Your task to perform on an android device: Add "lenovo thinkpad" to the cart on costco.com, then select checkout. Image 0: 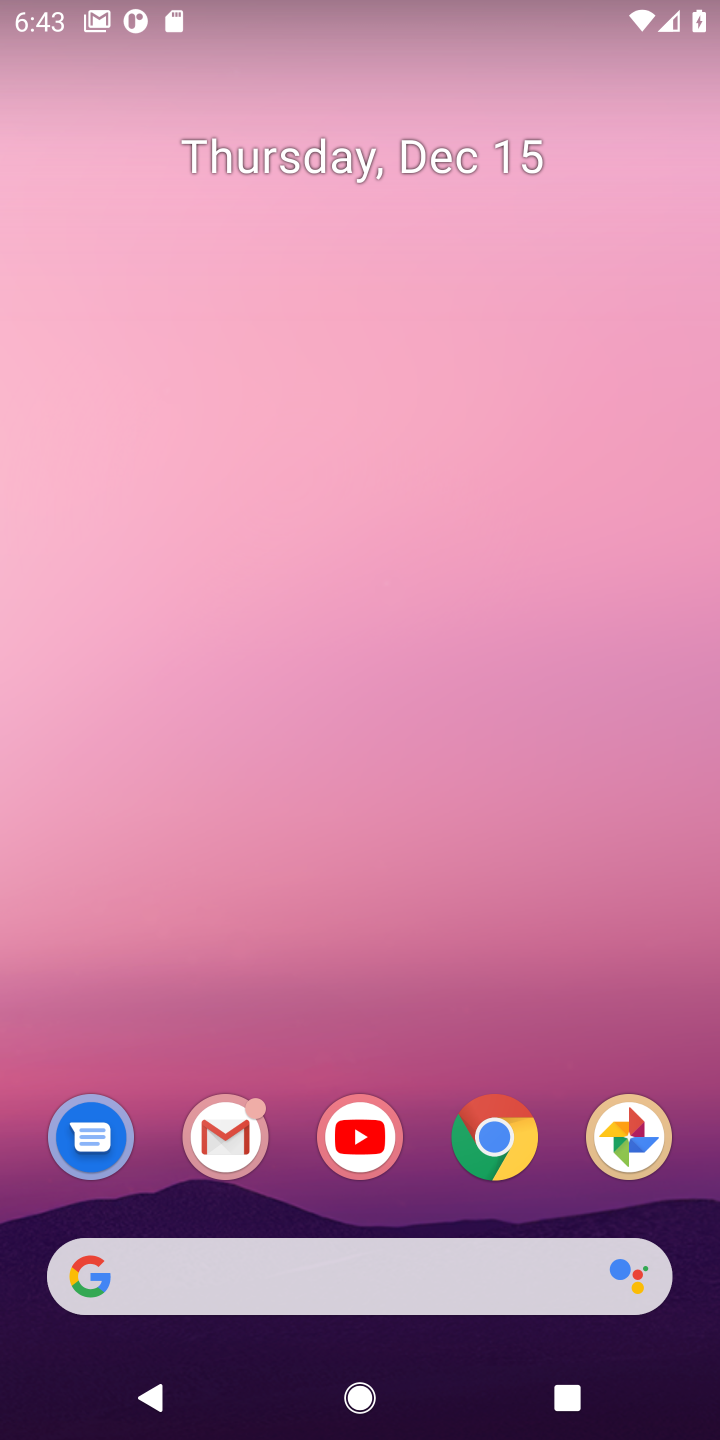
Step 0: drag from (304, 1209) to (304, 49)
Your task to perform on an android device: Add "lenovo thinkpad" to the cart on costco.com, then select checkout. Image 1: 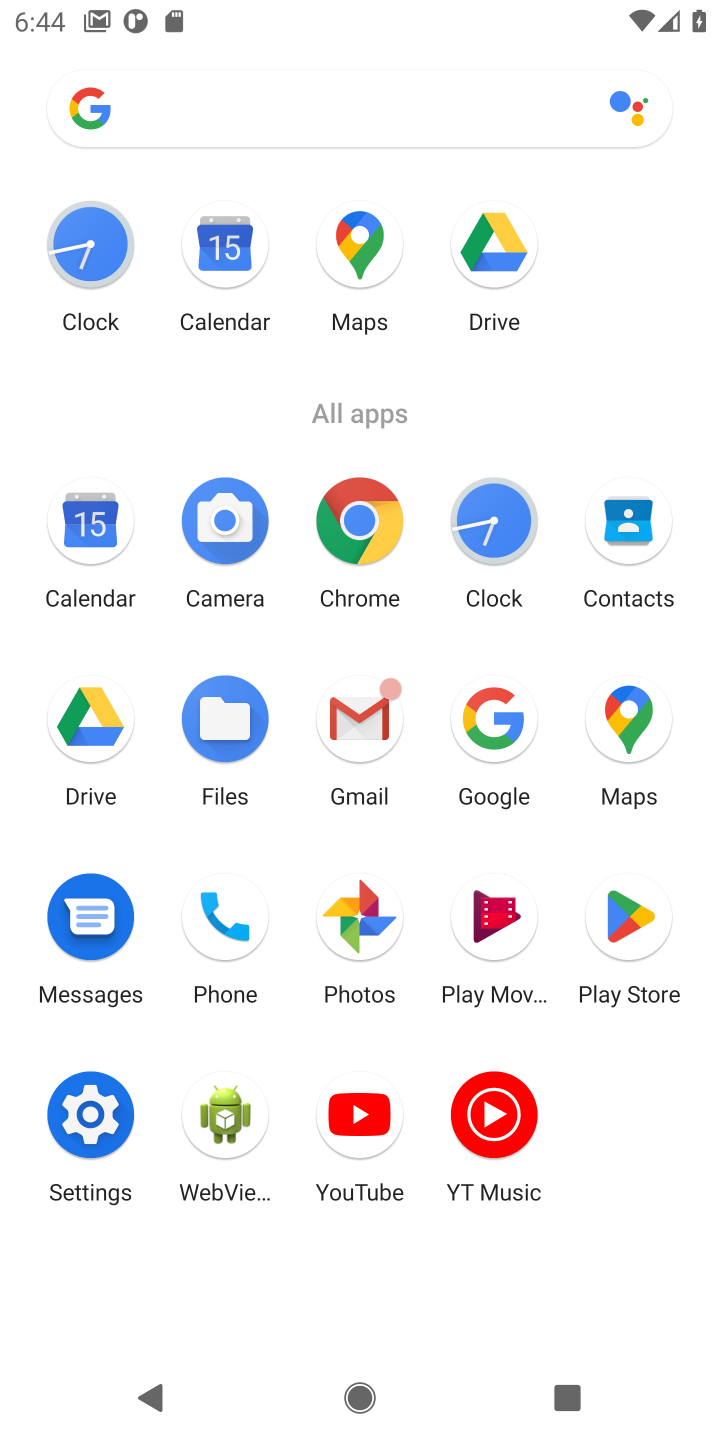
Step 1: click (498, 721)
Your task to perform on an android device: Add "lenovo thinkpad" to the cart on costco.com, then select checkout. Image 2: 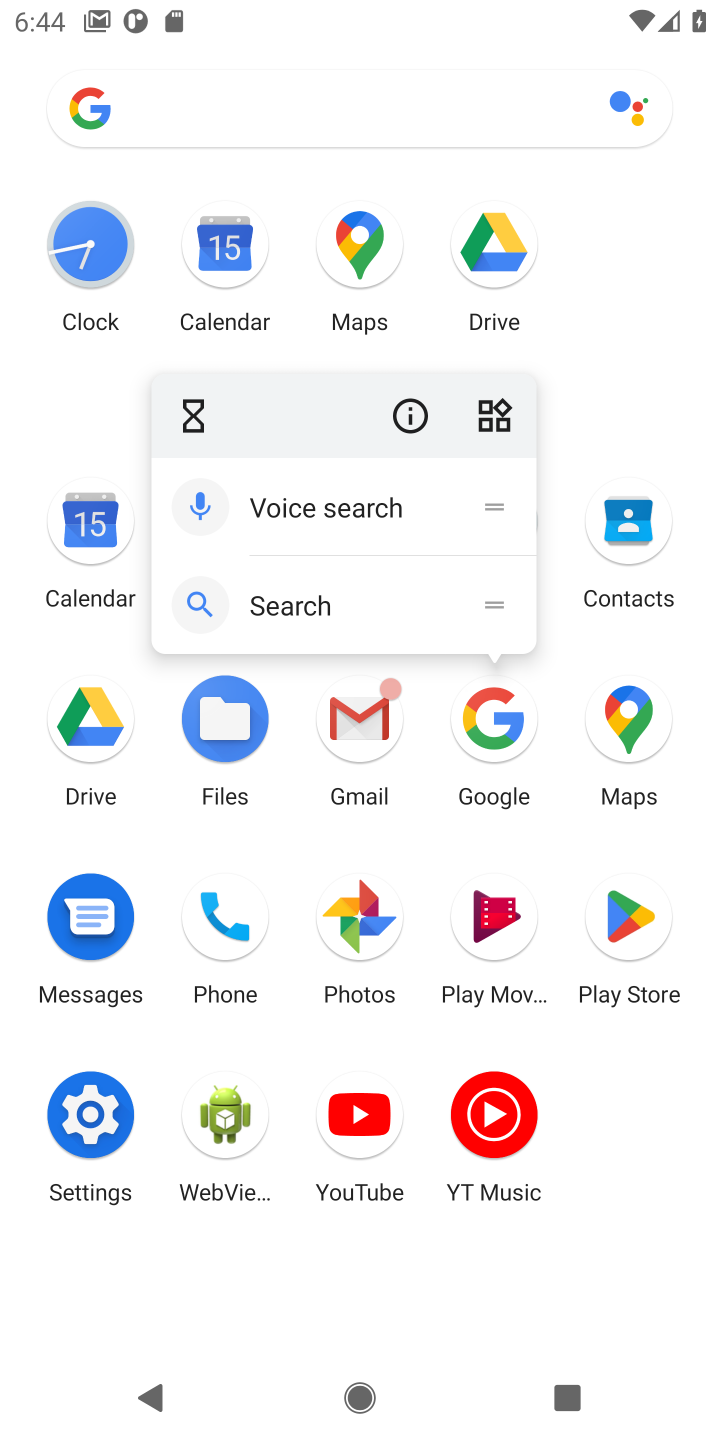
Step 2: click (498, 721)
Your task to perform on an android device: Add "lenovo thinkpad" to the cart on costco.com, then select checkout. Image 3: 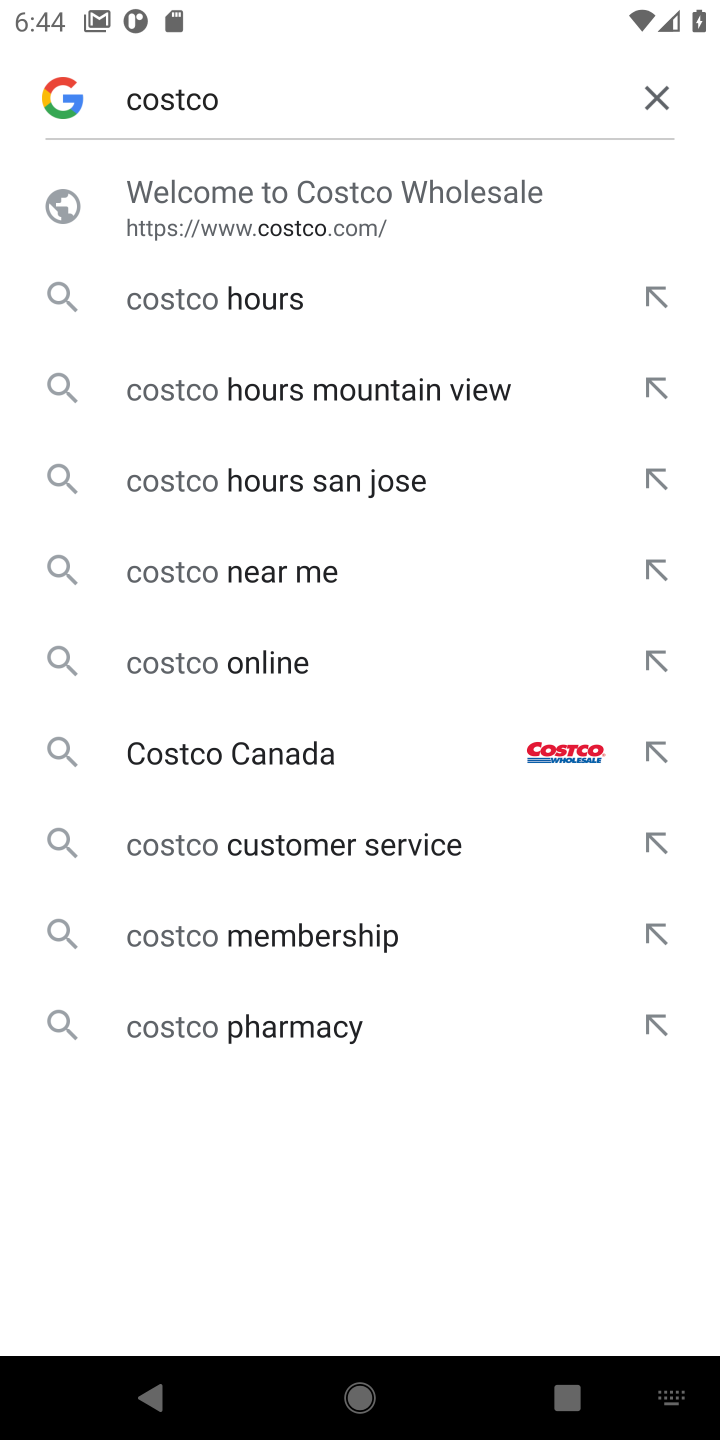
Step 3: click (213, 203)
Your task to perform on an android device: Add "lenovo thinkpad" to the cart on costco.com, then select checkout. Image 4: 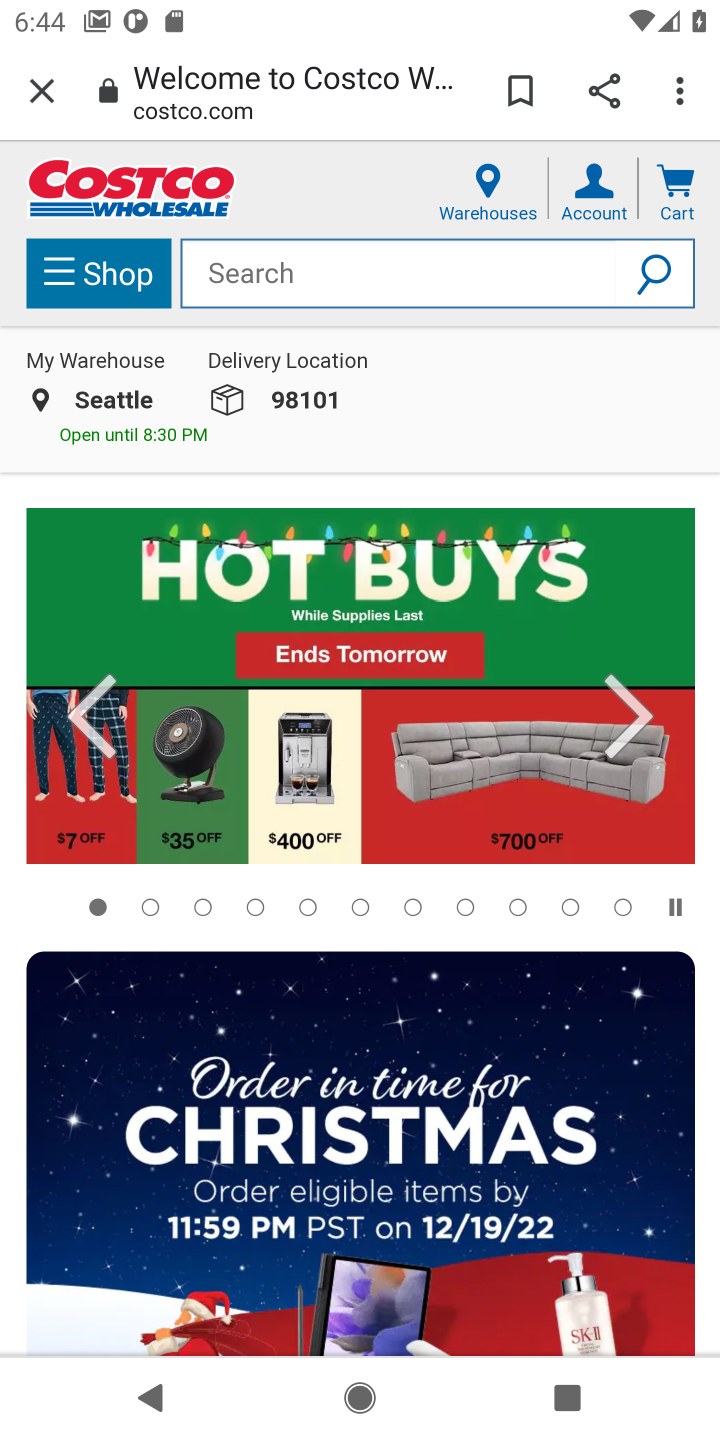
Step 4: click (231, 264)
Your task to perform on an android device: Add "lenovo thinkpad" to the cart on costco.com, then select checkout. Image 5: 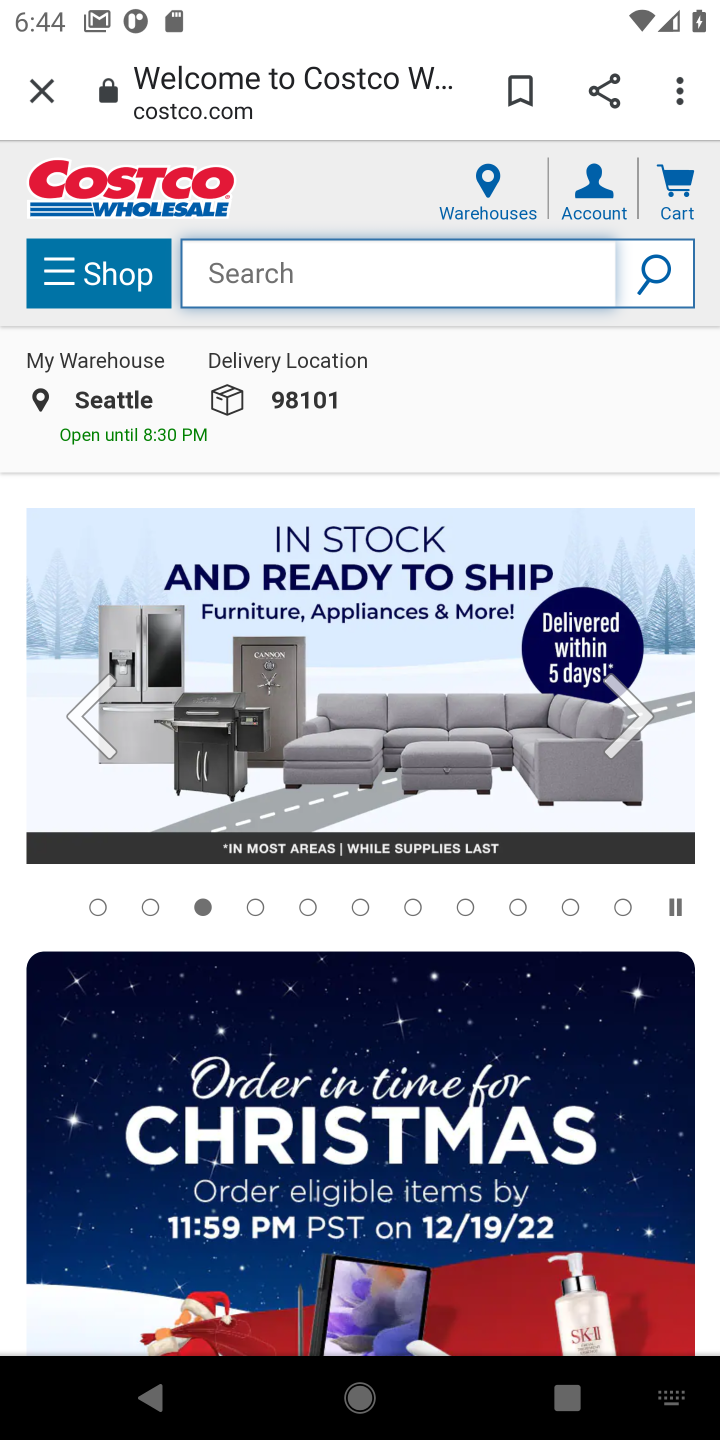
Step 5: type "lenovo thinkpad"
Your task to perform on an android device: Add "lenovo thinkpad" to the cart on costco.com, then select checkout. Image 6: 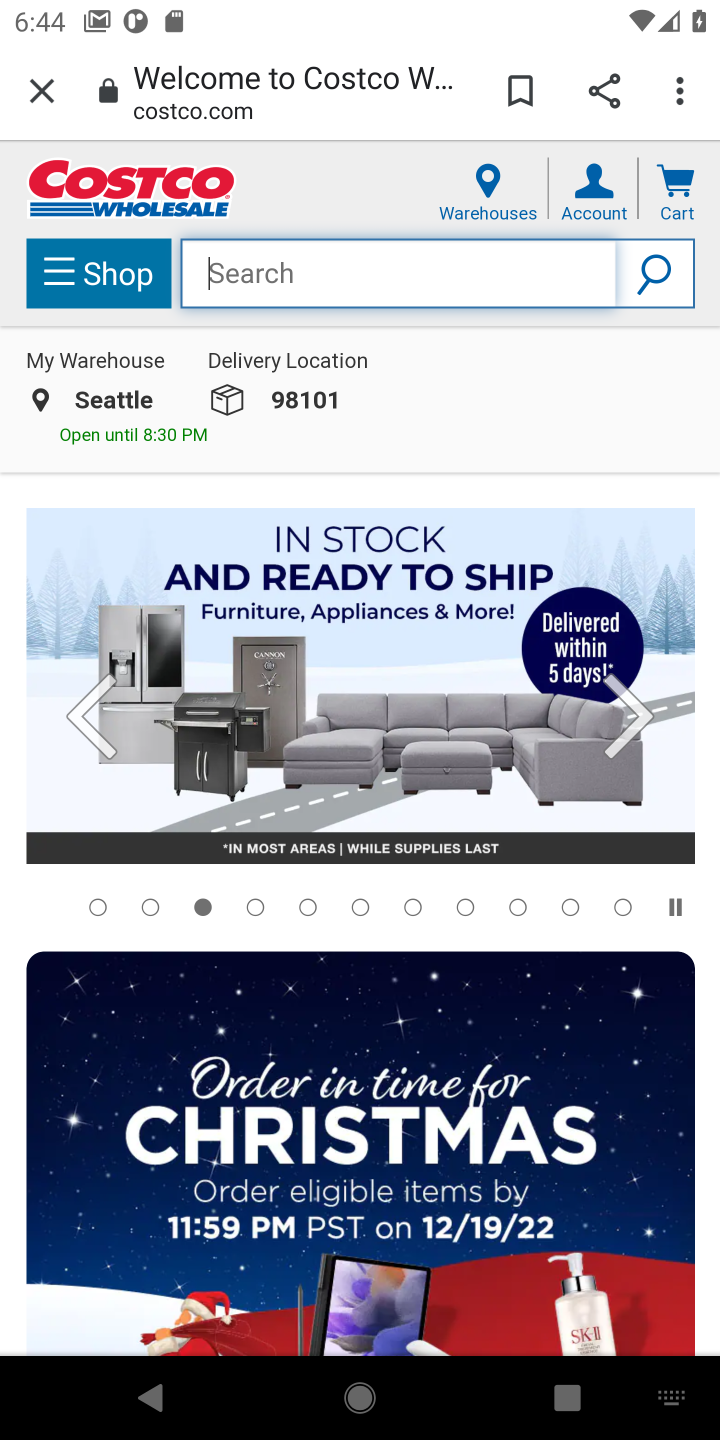
Step 6: click (640, 276)
Your task to perform on an android device: Add "lenovo thinkpad" to the cart on costco.com, then select checkout. Image 7: 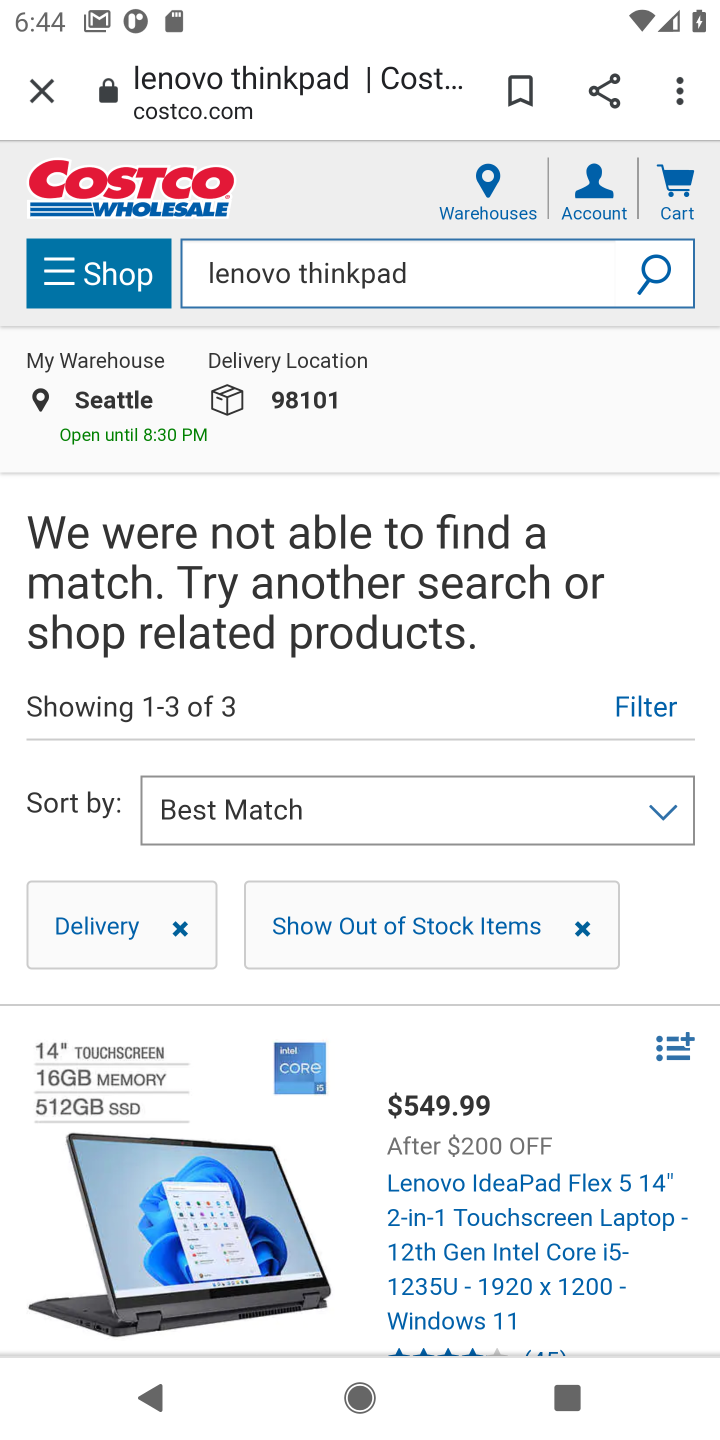
Step 7: drag from (357, 1166) to (338, 686)
Your task to perform on an android device: Add "lenovo thinkpad" to the cart on costco.com, then select checkout. Image 8: 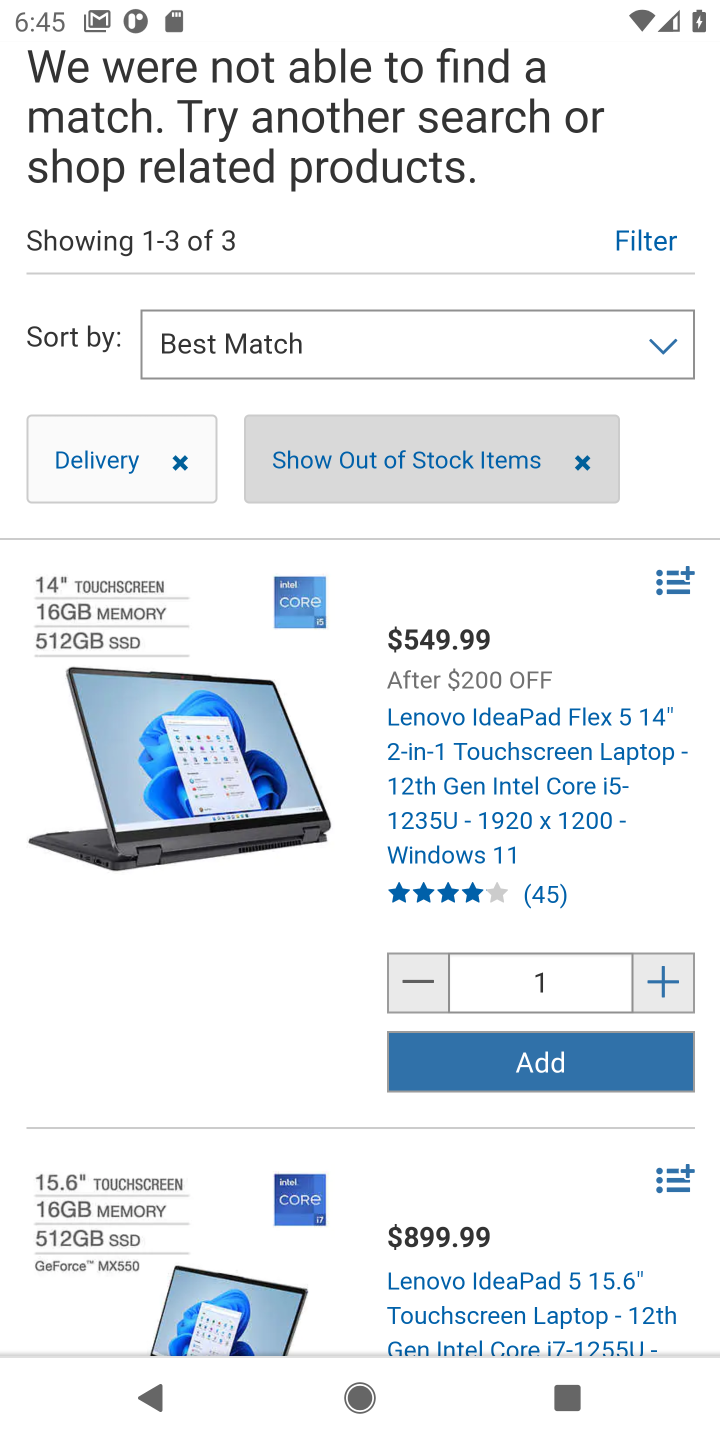
Step 8: click (544, 1067)
Your task to perform on an android device: Add "lenovo thinkpad" to the cart on costco.com, then select checkout. Image 9: 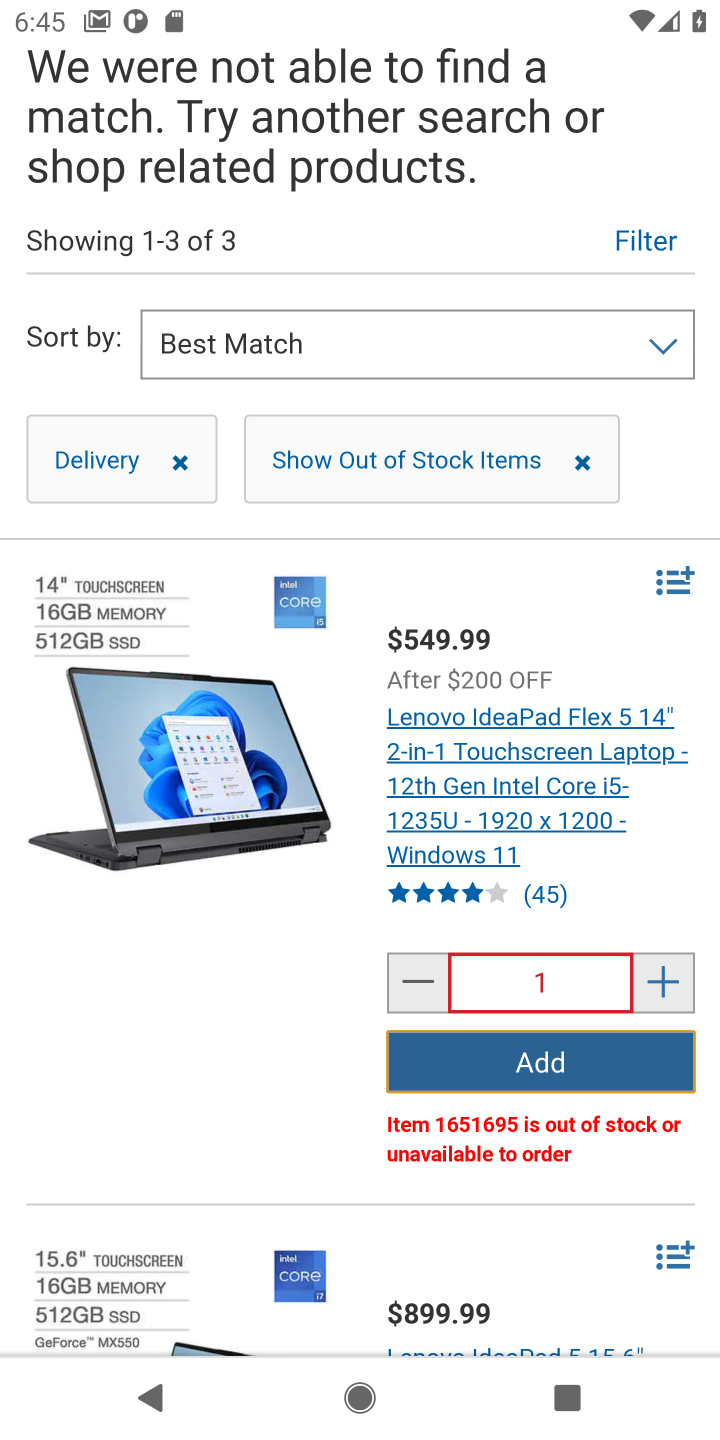
Step 9: click (537, 1057)
Your task to perform on an android device: Add "lenovo thinkpad" to the cart on costco.com, then select checkout. Image 10: 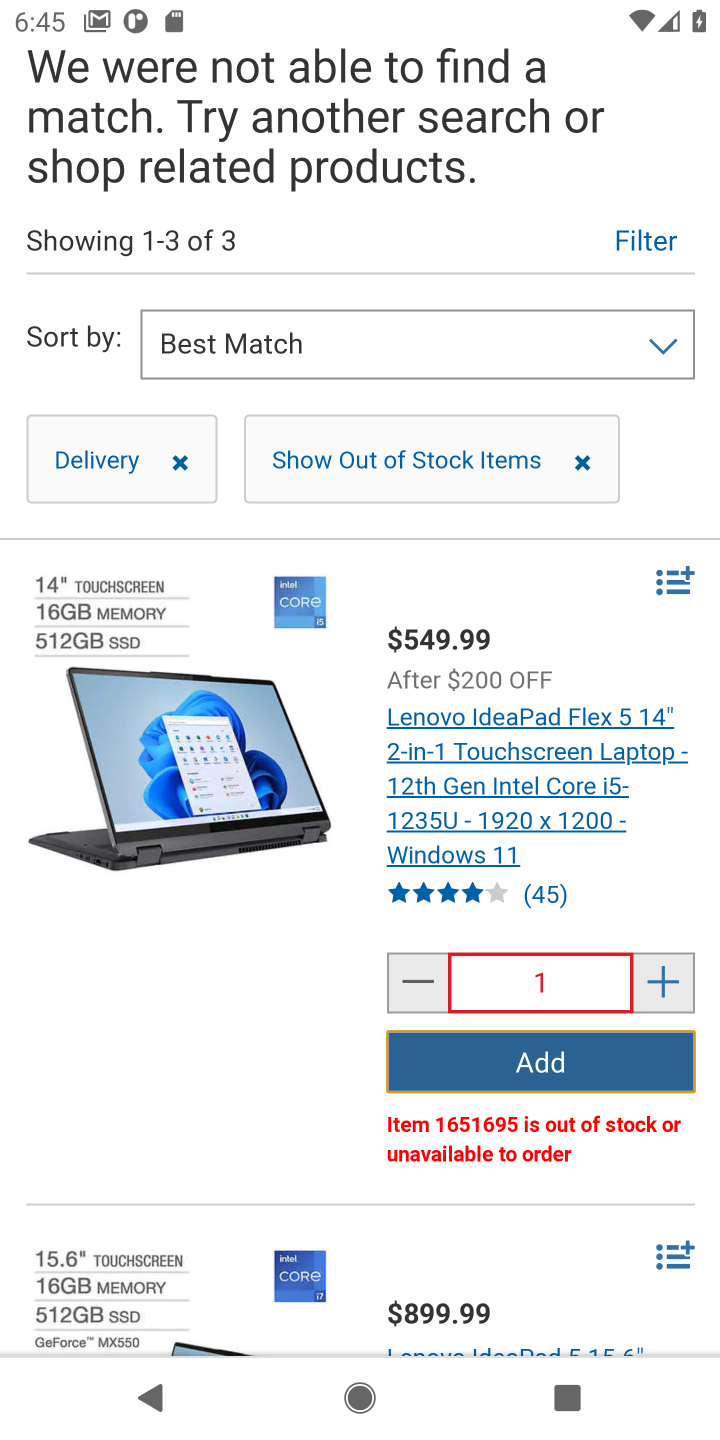
Step 10: task complete